Your task to perform on an android device: change the upload size in google photos Image 0: 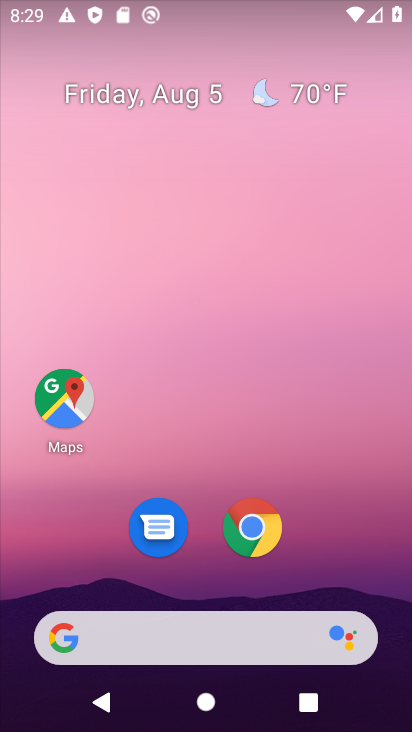
Step 0: drag from (193, 644) to (229, 177)
Your task to perform on an android device: change the upload size in google photos Image 1: 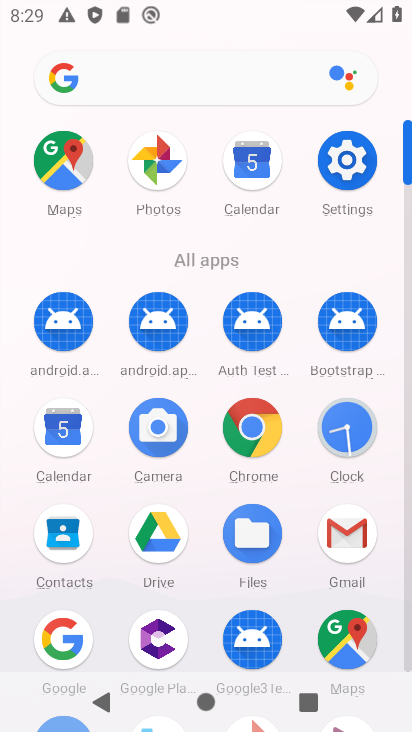
Step 1: click (151, 149)
Your task to perform on an android device: change the upload size in google photos Image 2: 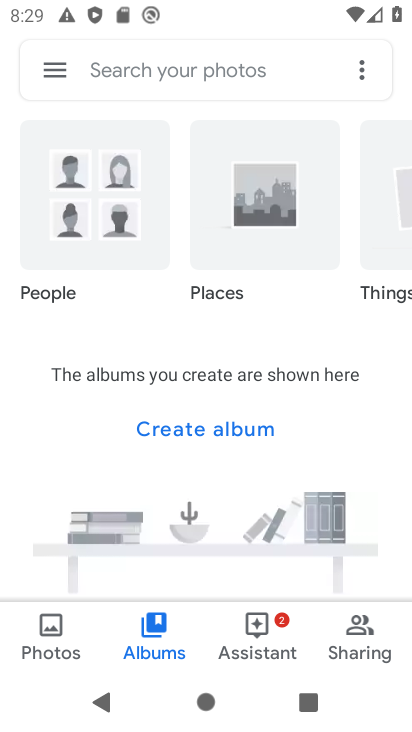
Step 2: click (43, 82)
Your task to perform on an android device: change the upload size in google photos Image 3: 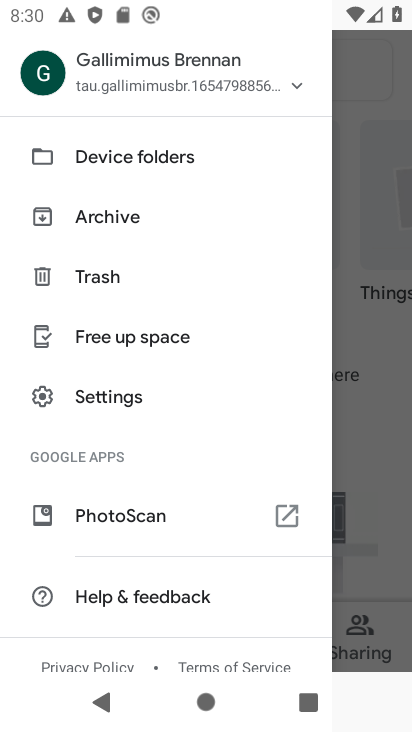
Step 3: click (142, 403)
Your task to perform on an android device: change the upload size in google photos Image 4: 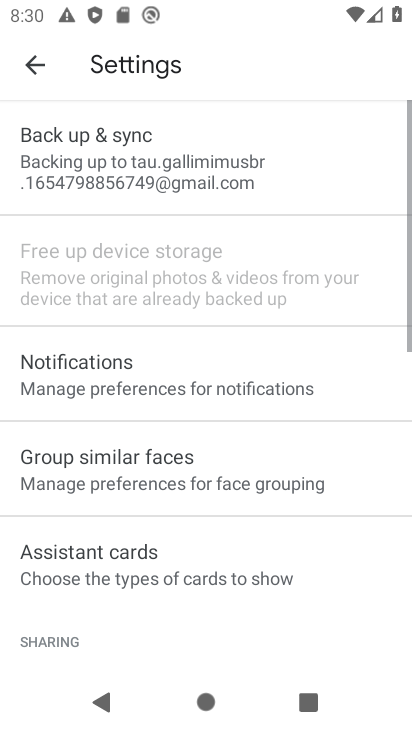
Step 4: click (177, 153)
Your task to perform on an android device: change the upload size in google photos Image 5: 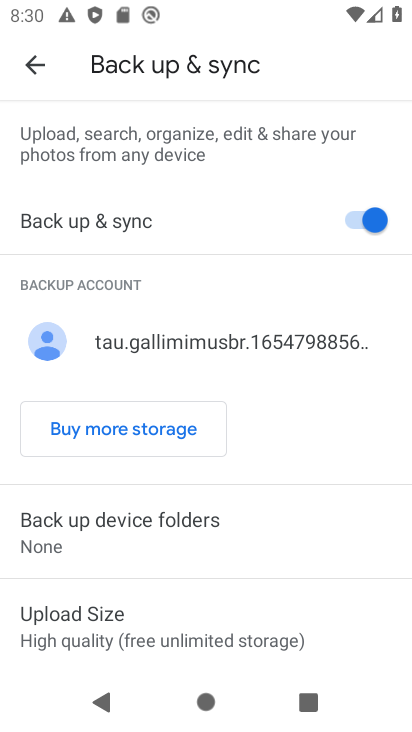
Step 5: click (208, 635)
Your task to perform on an android device: change the upload size in google photos Image 6: 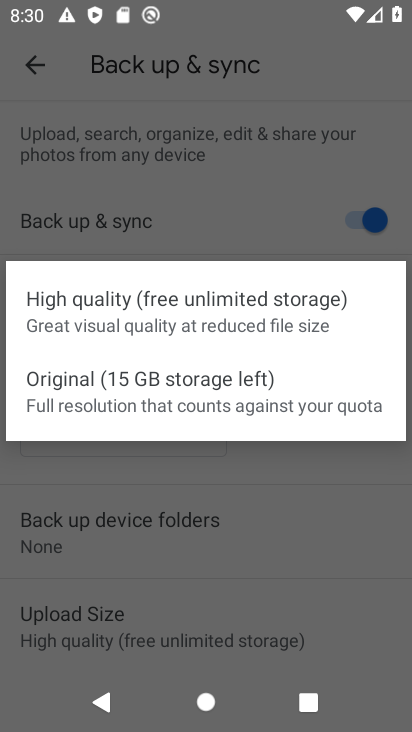
Step 6: click (177, 394)
Your task to perform on an android device: change the upload size in google photos Image 7: 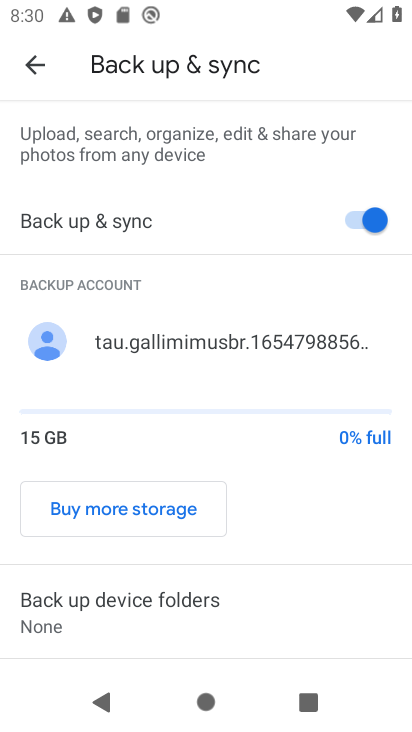
Step 7: task complete